Your task to perform on an android device: Search for pizza restaurants on Maps Image 0: 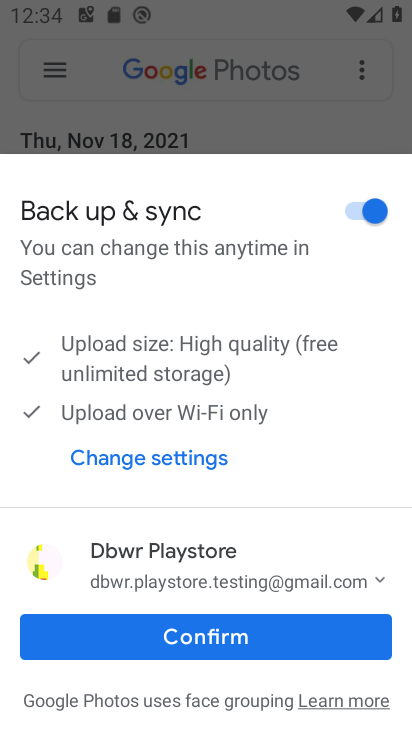
Step 0: press home button
Your task to perform on an android device: Search for pizza restaurants on Maps Image 1: 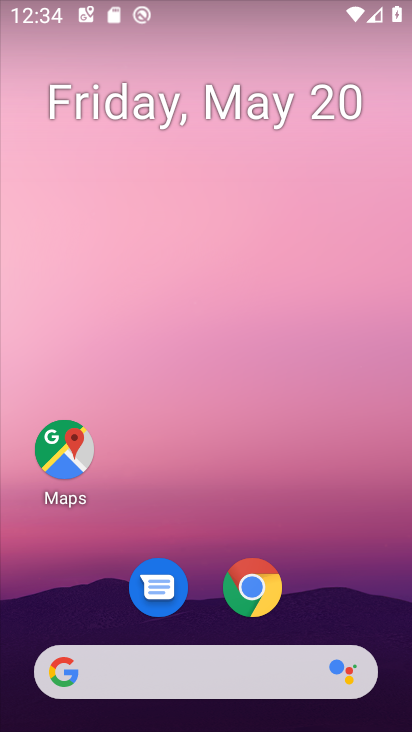
Step 1: drag from (317, 599) to (344, 224)
Your task to perform on an android device: Search for pizza restaurants on Maps Image 2: 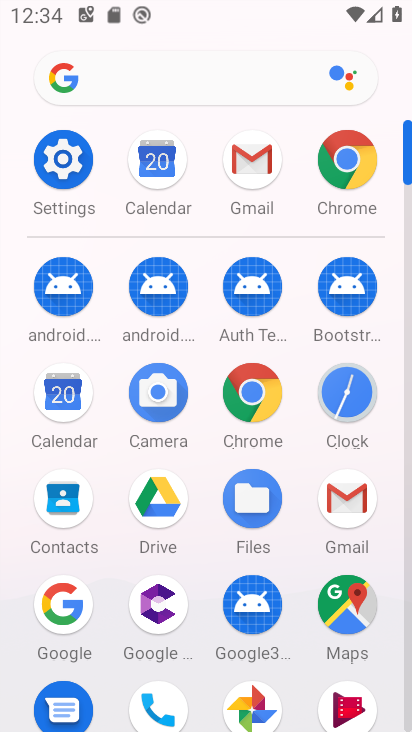
Step 2: click (358, 610)
Your task to perform on an android device: Search for pizza restaurants on Maps Image 3: 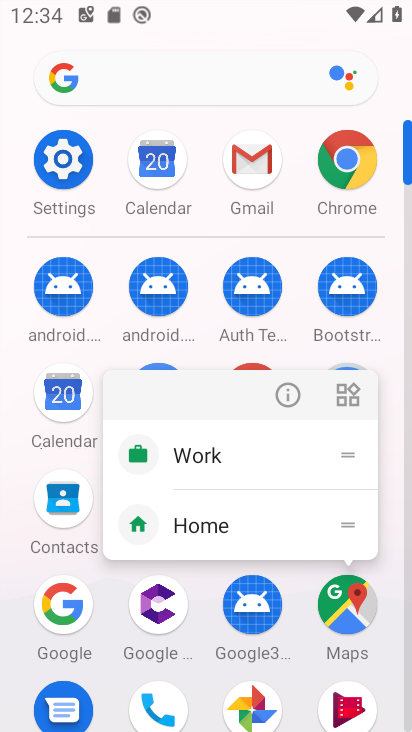
Step 3: click (354, 612)
Your task to perform on an android device: Search for pizza restaurants on Maps Image 4: 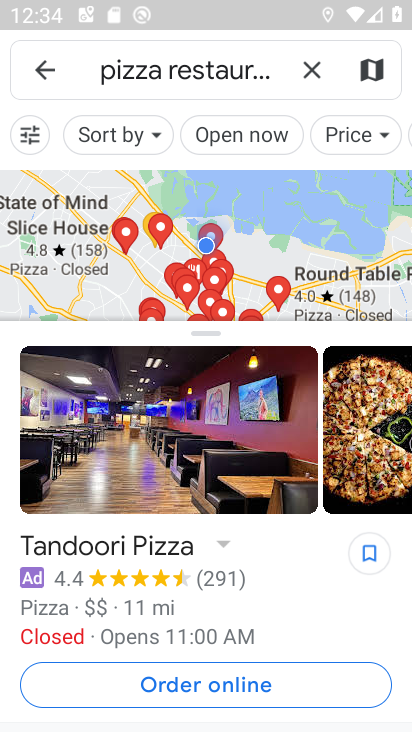
Step 4: task complete